Your task to perform on an android device: allow notifications from all sites in the chrome app Image 0: 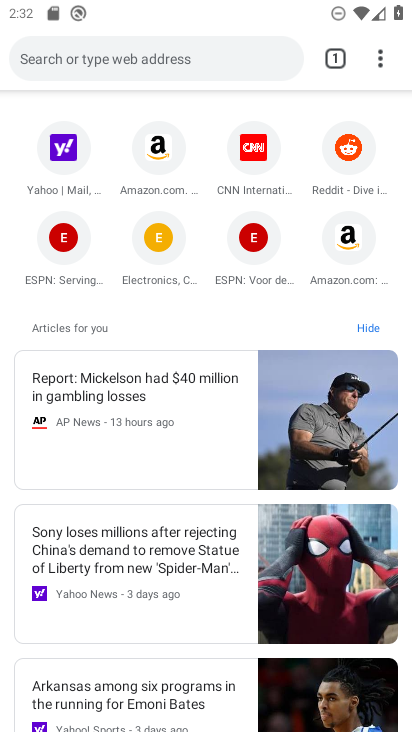
Step 0: press home button
Your task to perform on an android device: allow notifications from all sites in the chrome app Image 1: 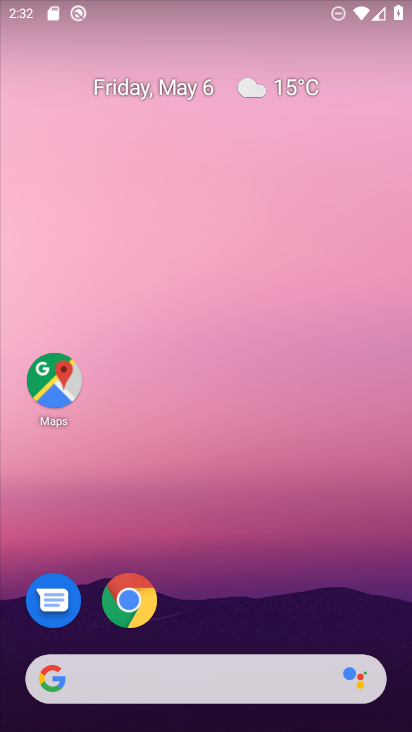
Step 1: drag from (356, 608) to (249, 35)
Your task to perform on an android device: allow notifications from all sites in the chrome app Image 2: 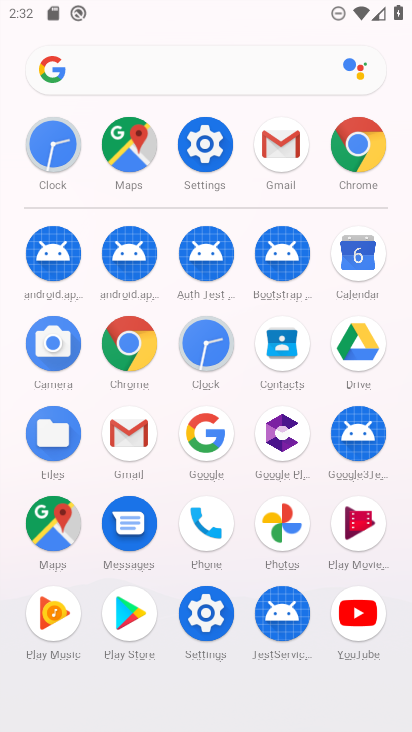
Step 2: click (356, 140)
Your task to perform on an android device: allow notifications from all sites in the chrome app Image 3: 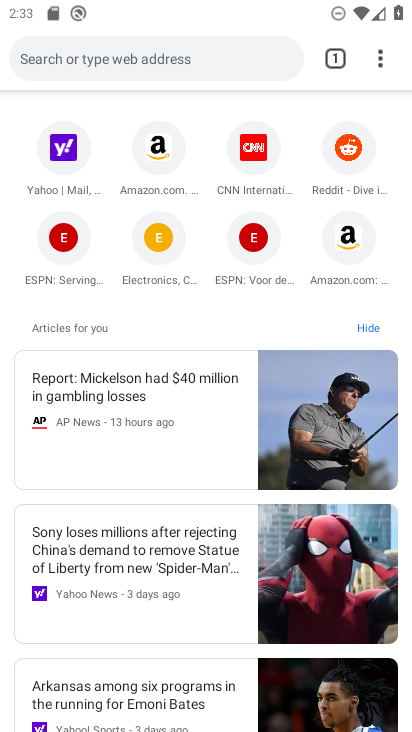
Step 3: click (375, 59)
Your task to perform on an android device: allow notifications from all sites in the chrome app Image 4: 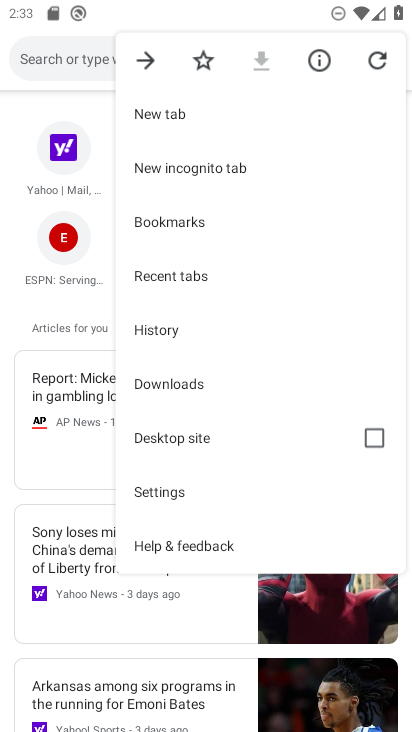
Step 4: click (164, 487)
Your task to perform on an android device: allow notifications from all sites in the chrome app Image 5: 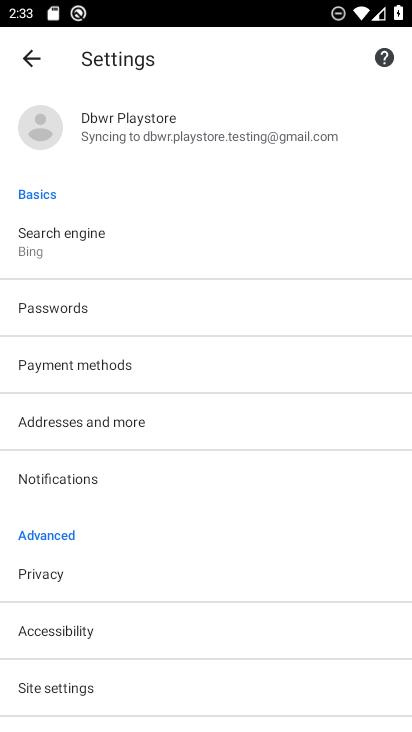
Step 5: drag from (97, 701) to (117, 419)
Your task to perform on an android device: allow notifications from all sites in the chrome app Image 6: 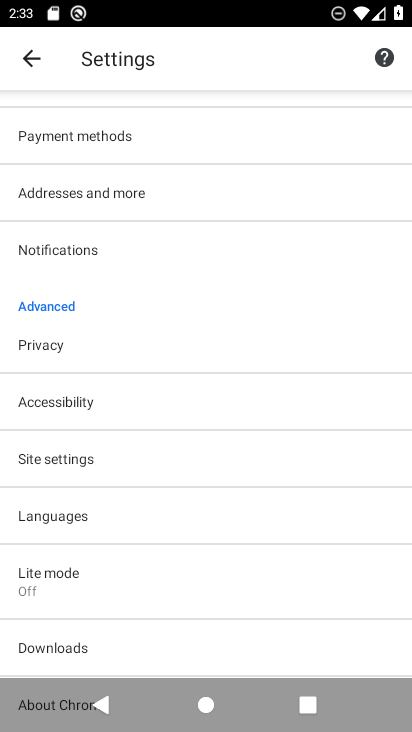
Step 6: click (69, 248)
Your task to perform on an android device: allow notifications from all sites in the chrome app Image 7: 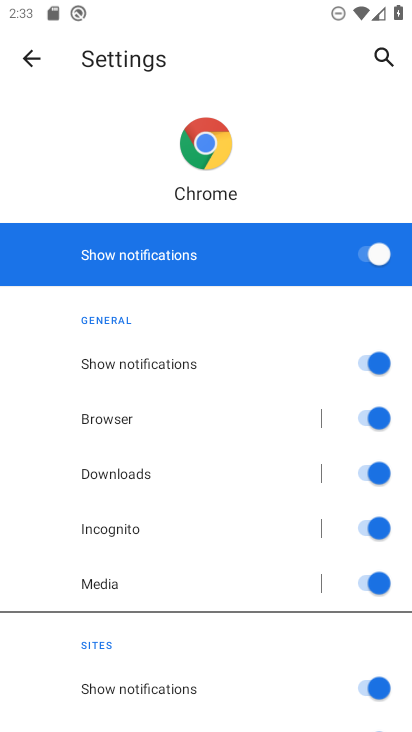
Step 7: task complete